Your task to perform on an android device: change alarm snooze length Image 0: 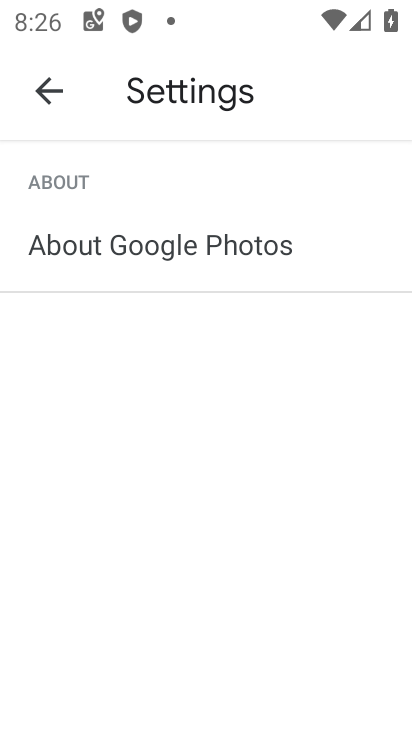
Step 0: press home button
Your task to perform on an android device: change alarm snooze length Image 1: 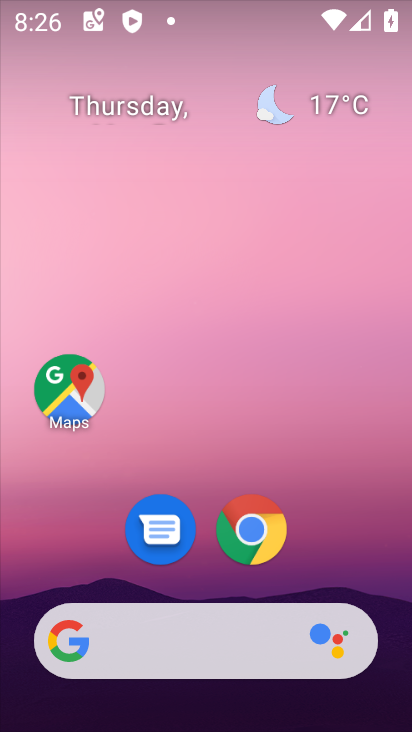
Step 1: drag from (339, 510) to (355, 121)
Your task to perform on an android device: change alarm snooze length Image 2: 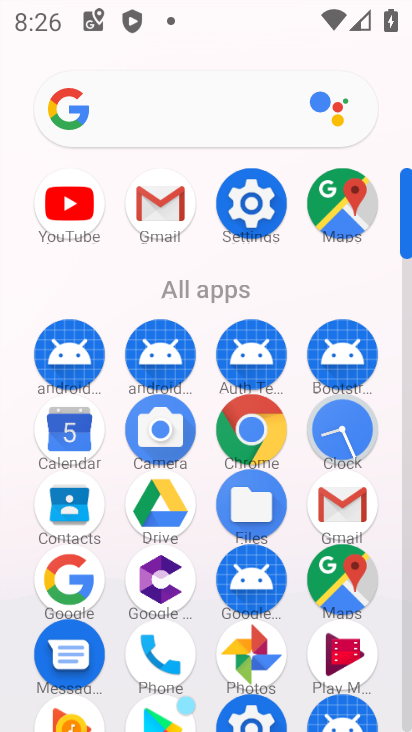
Step 2: click (339, 426)
Your task to perform on an android device: change alarm snooze length Image 3: 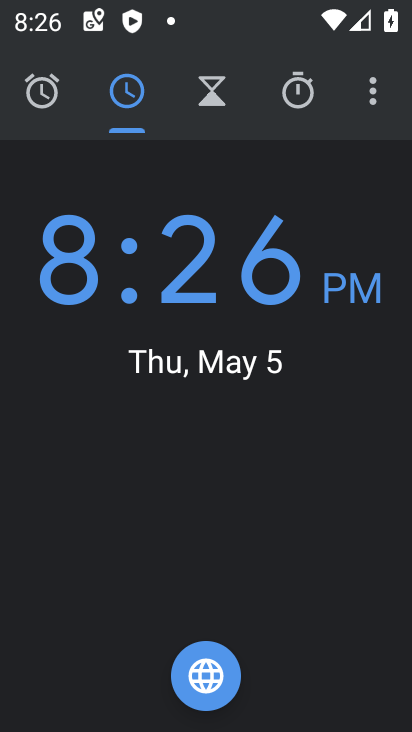
Step 3: click (375, 91)
Your task to perform on an android device: change alarm snooze length Image 4: 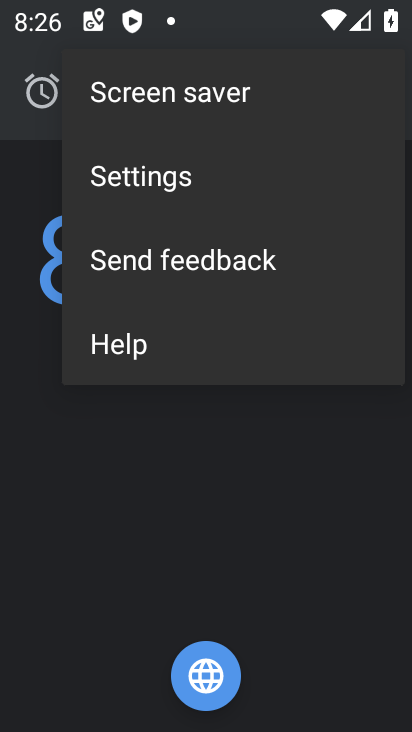
Step 4: click (170, 173)
Your task to perform on an android device: change alarm snooze length Image 5: 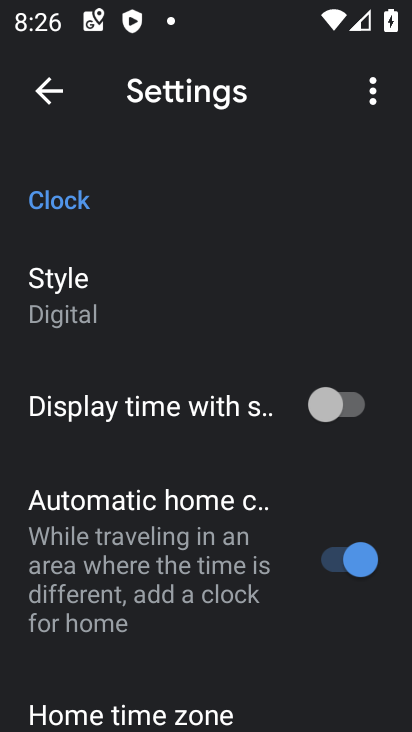
Step 5: drag from (249, 438) to (248, 138)
Your task to perform on an android device: change alarm snooze length Image 6: 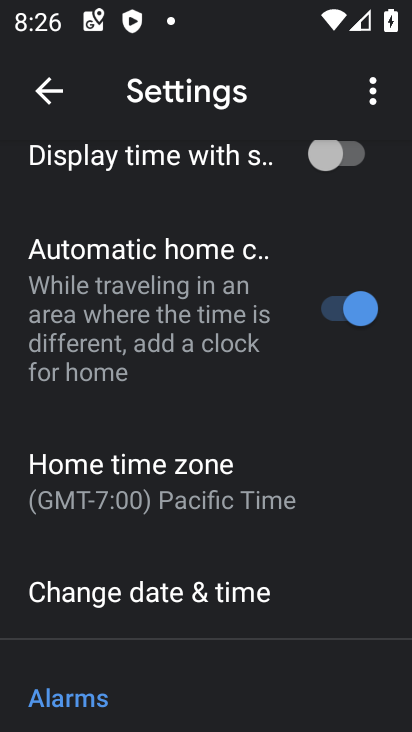
Step 6: drag from (284, 572) to (246, 243)
Your task to perform on an android device: change alarm snooze length Image 7: 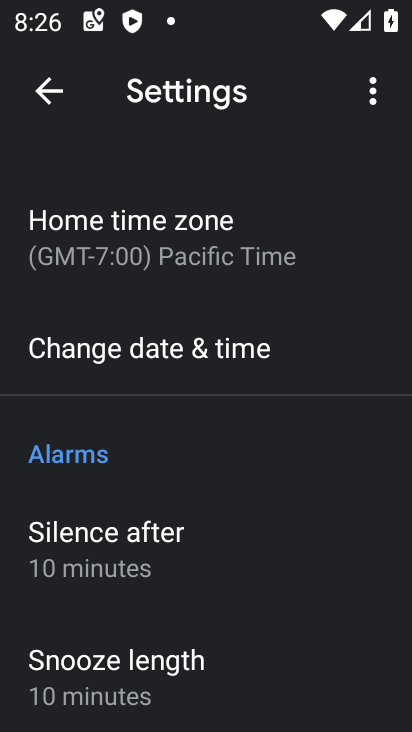
Step 7: drag from (222, 553) to (199, 368)
Your task to perform on an android device: change alarm snooze length Image 8: 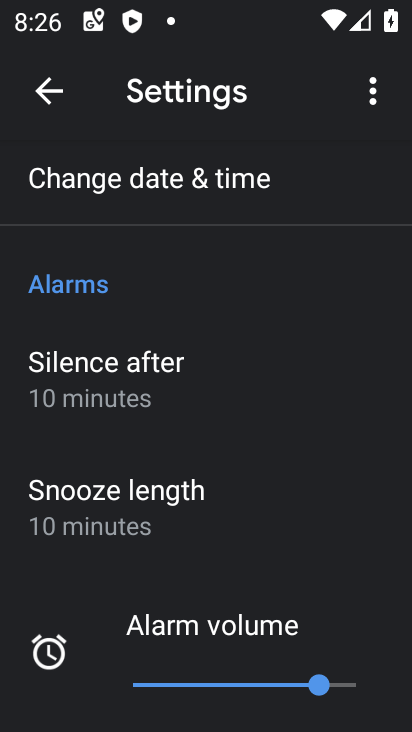
Step 8: click (127, 493)
Your task to perform on an android device: change alarm snooze length Image 9: 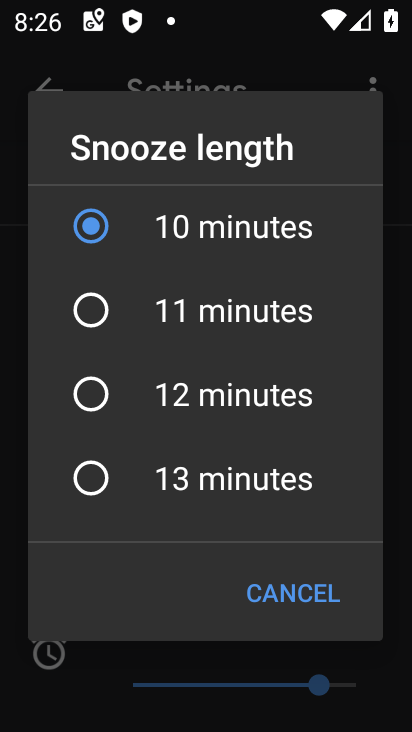
Step 9: click (95, 315)
Your task to perform on an android device: change alarm snooze length Image 10: 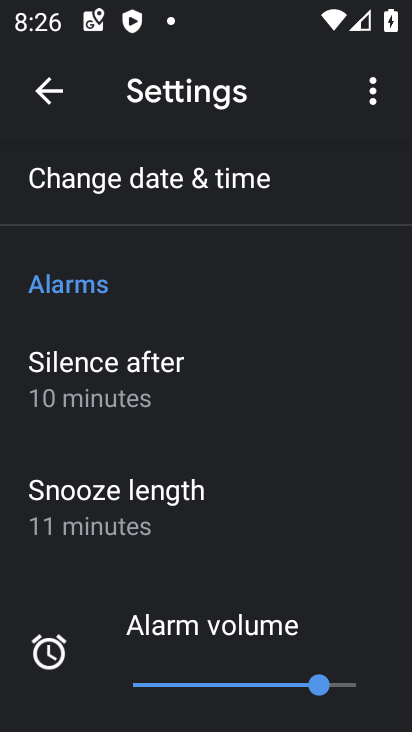
Step 10: task complete